Your task to perform on an android device: Go to location settings Image 0: 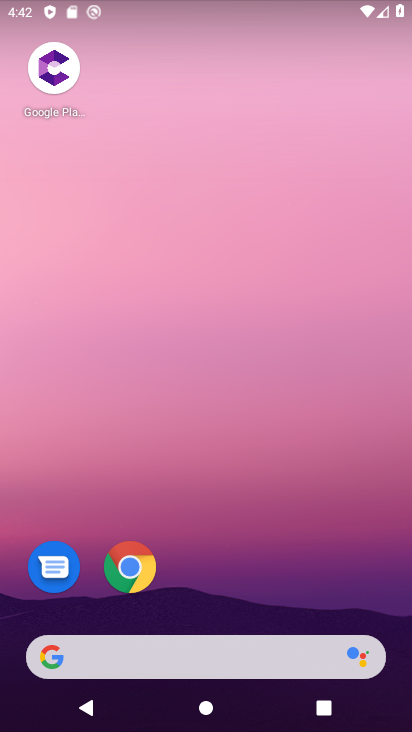
Step 0: drag from (219, 632) to (280, 156)
Your task to perform on an android device: Go to location settings Image 1: 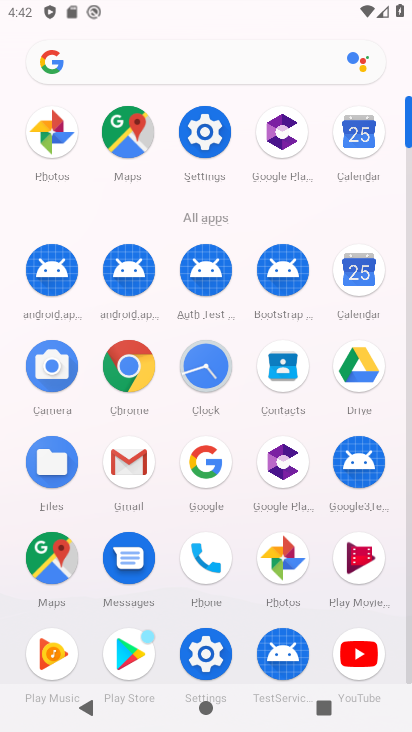
Step 1: drag from (140, 595) to (225, 370)
Your task to perform on an android device: Go to location settings Image 2: 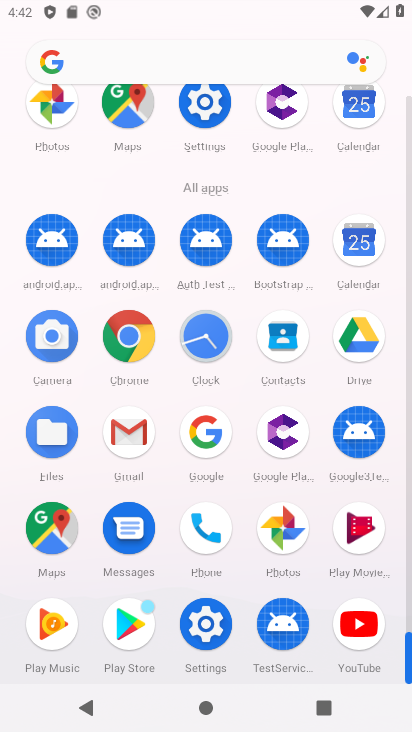
Step 2: click (202, 634)
Your task to perform on an android device: Go to location settings Image 3: 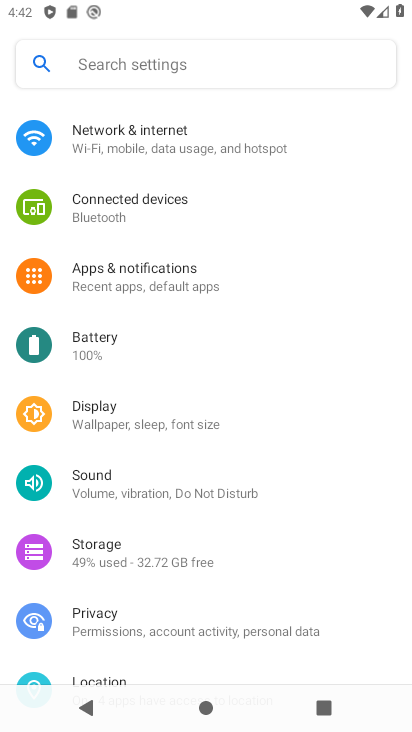
Step 3: drag from (165, 596) to (254, 314)
Your task to perform on an android device: Go to location settings Image 4: 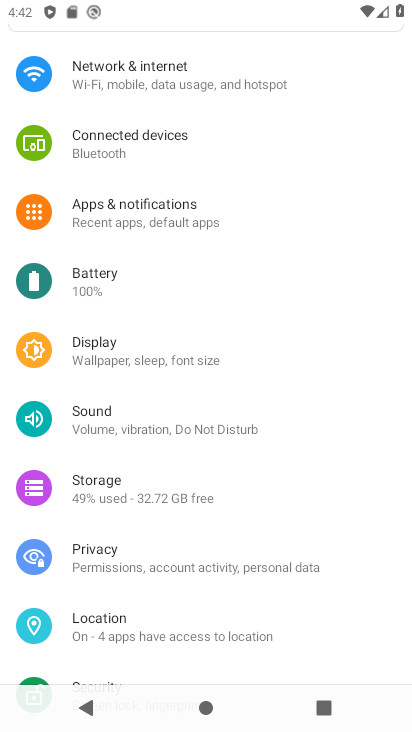
Step 4: click (140, 629)
Your task to perform on an android device: Go to location settings Image 5: 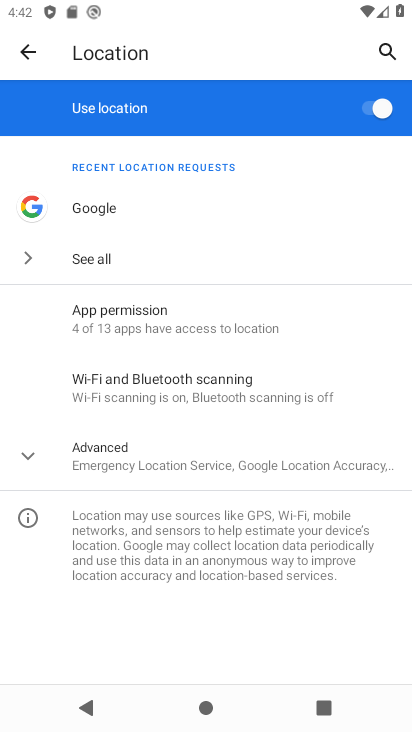
Step 5: task complete